Your task to perform on an android device: set the timer Image 0: 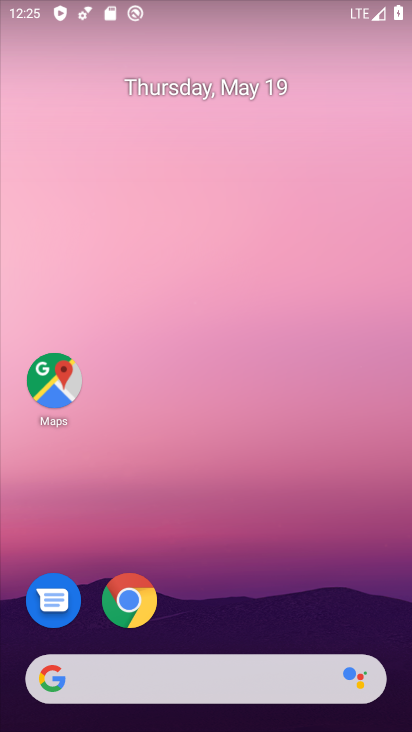
Step 0: drag from (253, 582) to (218, 203)
Your task to perform on an android device: set the timer Image 1: 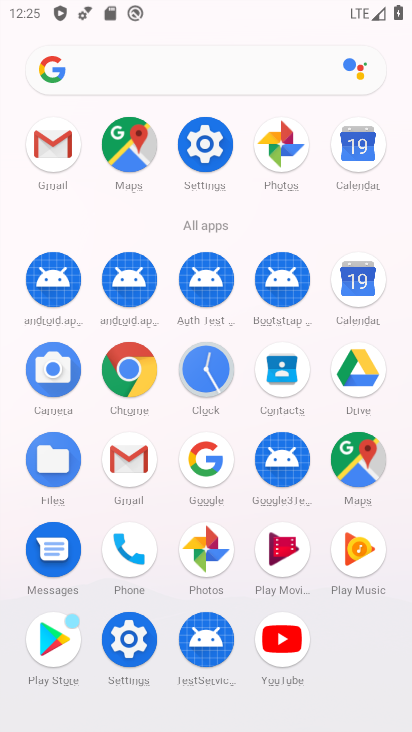
Step 1: click (195, 355)
Your task to perform on an android device: set the timer Image 2: 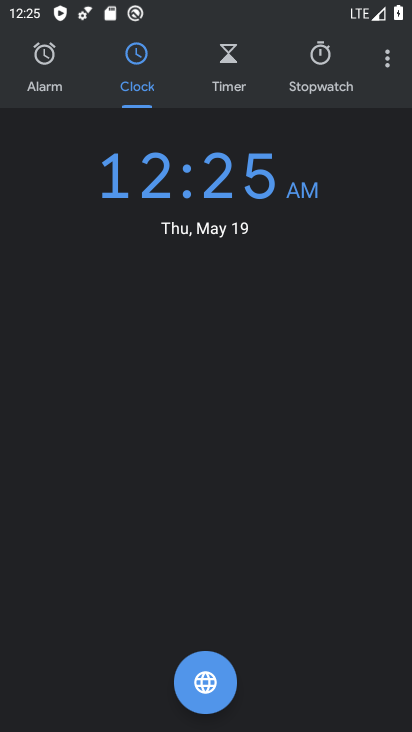
Step 2: click (227, 61)
Your task to perform on an android device: set the timer Image 3: 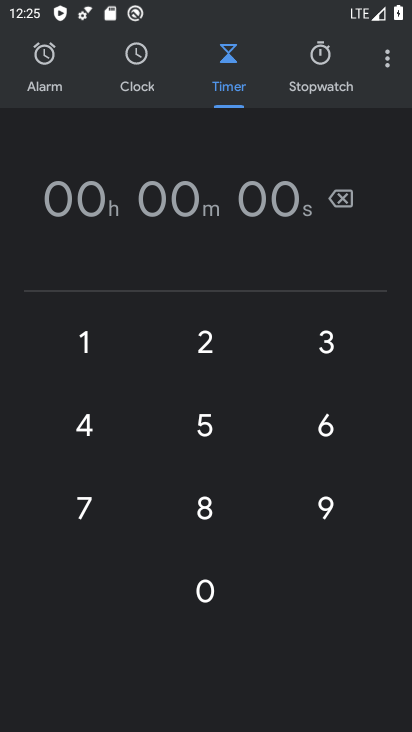
Step 3: click (80, 325)
Your task to perform on an android device: set the timer Image 4: 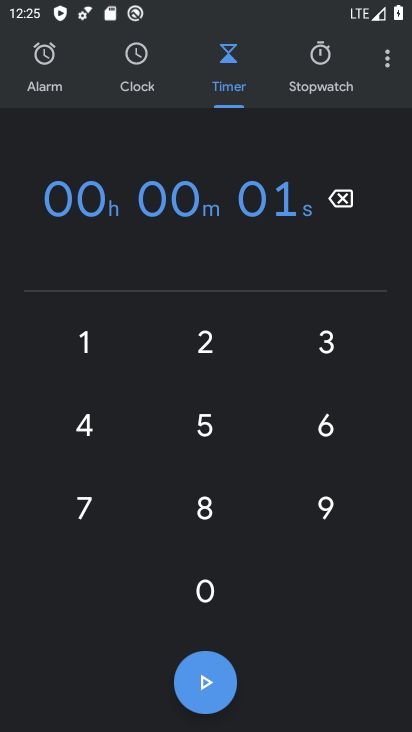
Step 4: click (80, 325)
Your task to perform on an android device: set the timer Image 5: 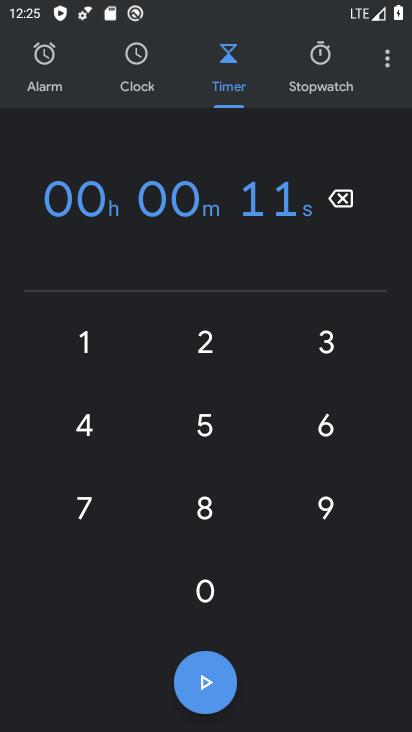
Step 5: click (80, 325)
Your task to perform on an android device: set the timer Image 6: 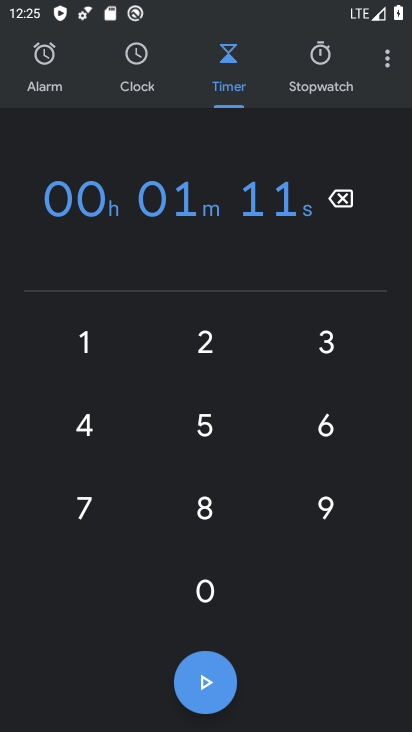
Step 6: click (80, 325)
Your task to perform on an android device: set the timer Image 7: 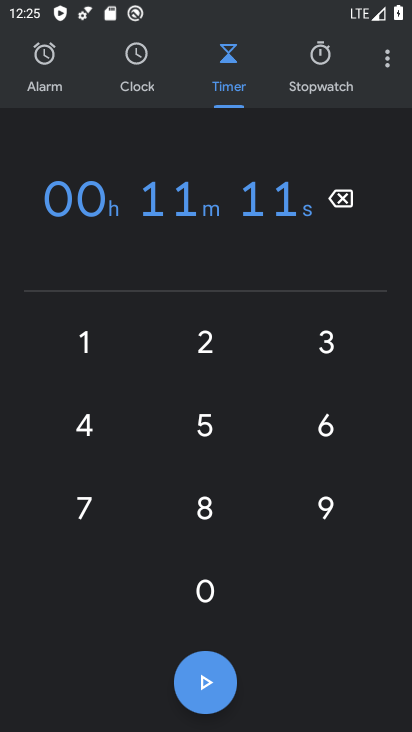
Step 7: click (80, 325)
Your task to perform on an android device: set the timer Image 8: 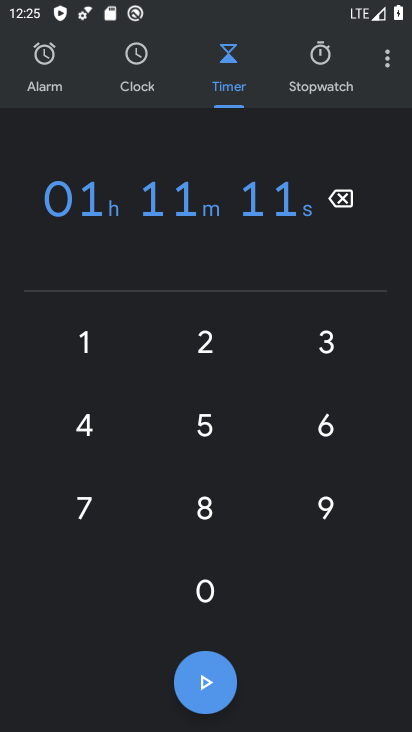
Step 8: task complete